Your task to perform on an android device: Go to calendar. Show me events next week Image 0: 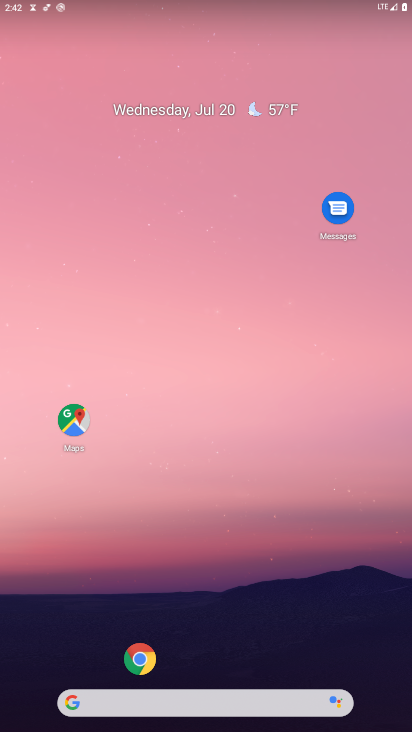
Step 0: drag from (182, 254) to (233, 123)
Your task to perform on an android device: Go to calendar. Show me events next week Image 1: 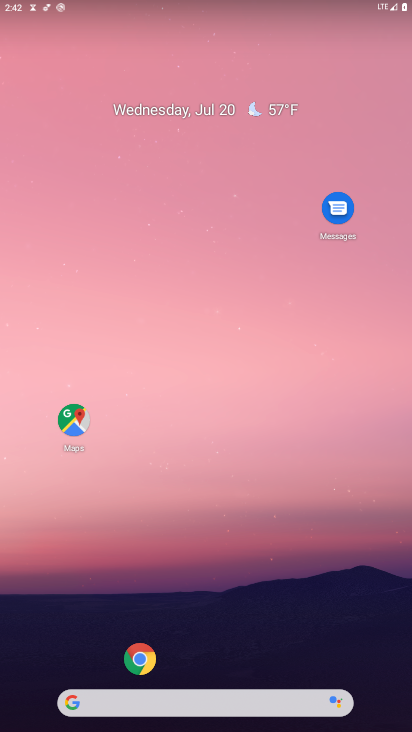
Step 1: drag from (165, 383) to (334, 6)
Your task to perform on an android device: Go to calendar. Show me events next week Image 2: 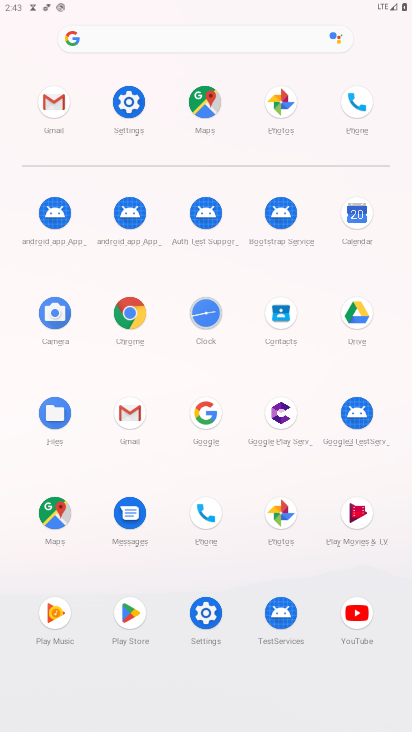
Step 2: click (363, 213)
Your task to perform on an android device: Go to calendar. Show me events next week Image 3: 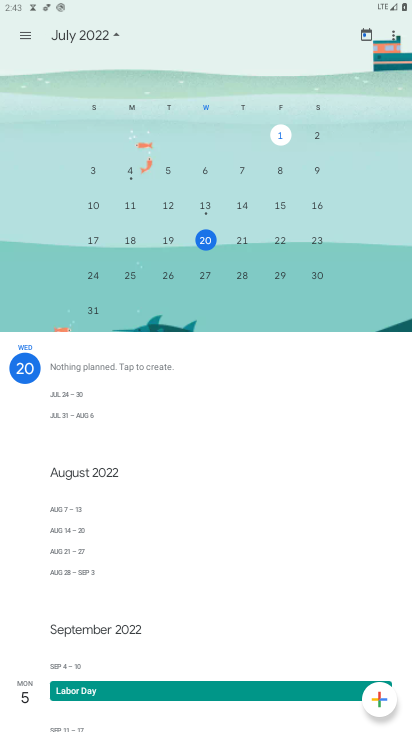
Step 3: task complete